Your task to perform on an android device: remove spam from my inbox in the gmail app Image 0: 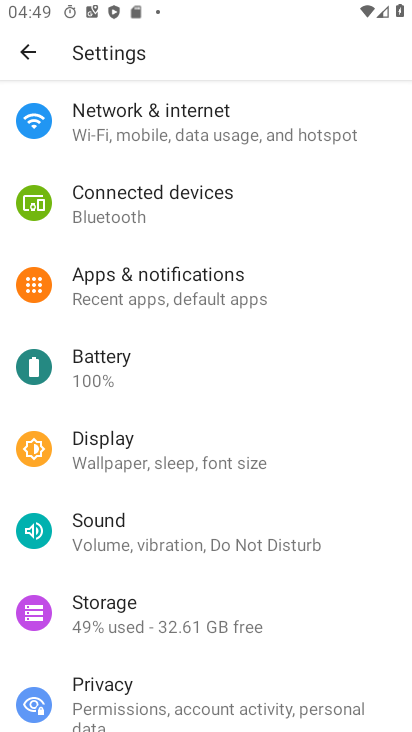
Step 0: press home button
Your task to perform on an android device: remove spam from my inbox in the gmail app Image 1: 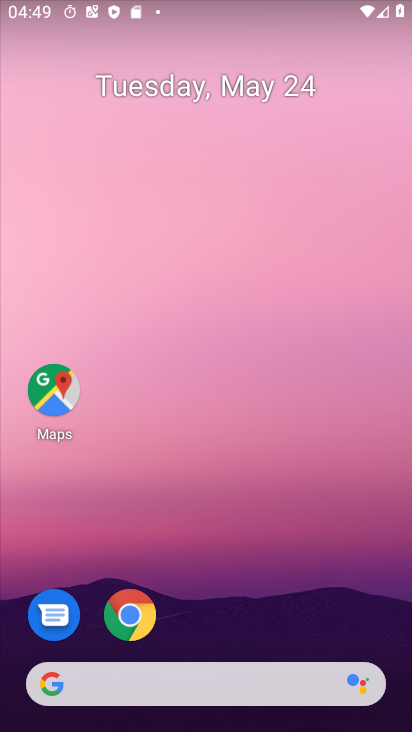
Step 1: drag from (168, 609) to (261, 109)
Your task to perform on an android device: remove spam from my inbox in the gmail app Image 2: 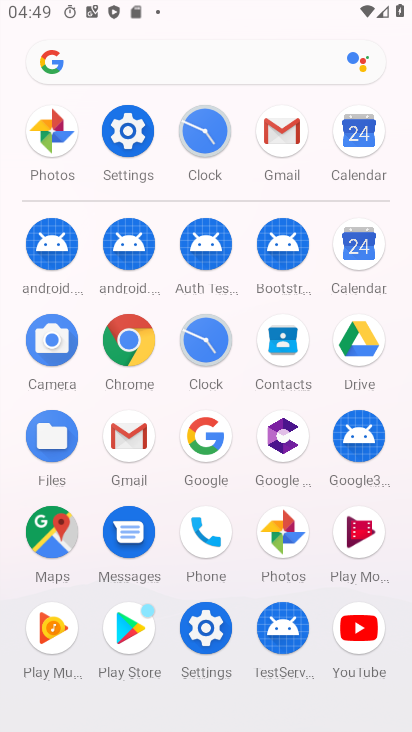
Step 2: click (270, 142)
Your task to perform on an android device: remove spam from my inbox in the gmail app Image 3: 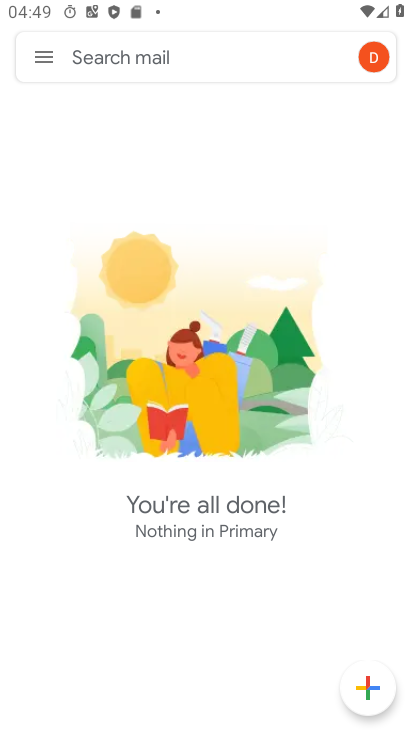
Step 3: click (49, 51)
Your task to perform on an android device: remove spam from my inbox in the gmail app Image 4: 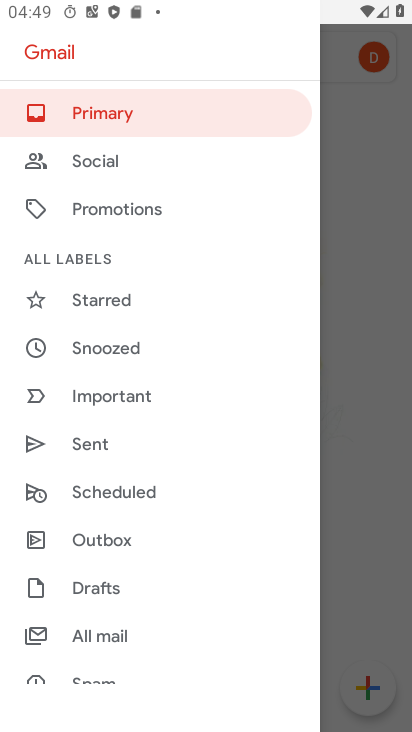
Step 4: drag from (134, 643) to (188, 318)
Your task to perform on an android device: remove spam from my inbox in the gmail app Image 5: 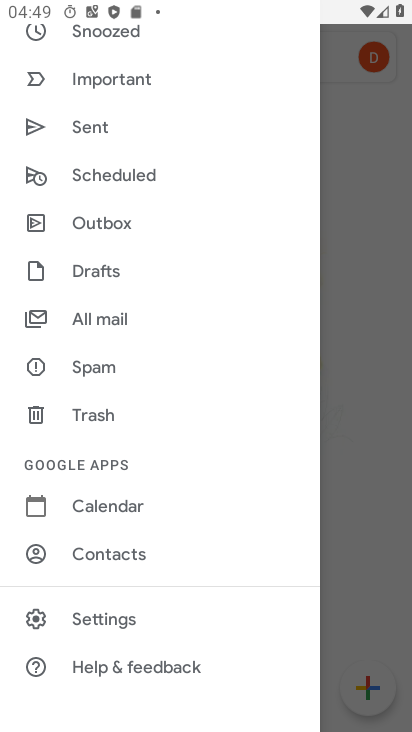
Step 5: click (112, 370)
Your task to perform on an android device: remove spam from my inbox in the gmail app Image 6: 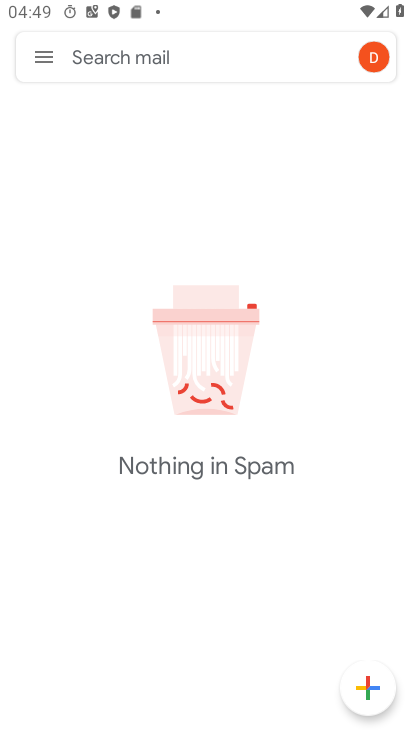
Step 6: task complete